Your task to perform on an android device: Go to internet settings Image 0: 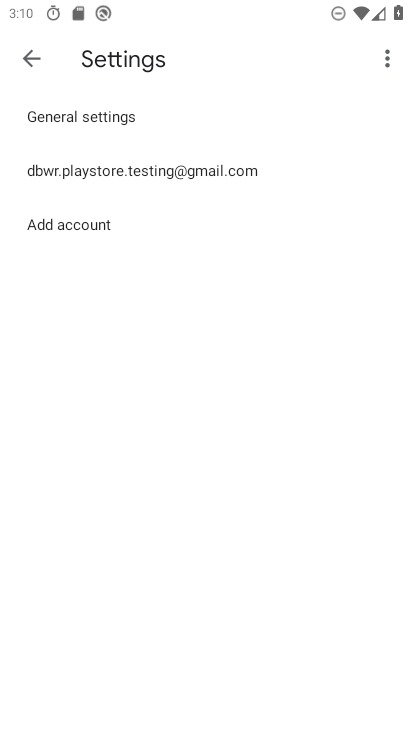
Step 0: drag from (239, 605) to (334, 341)
Your task to perform on an android device: Go to internet settings Image 1: 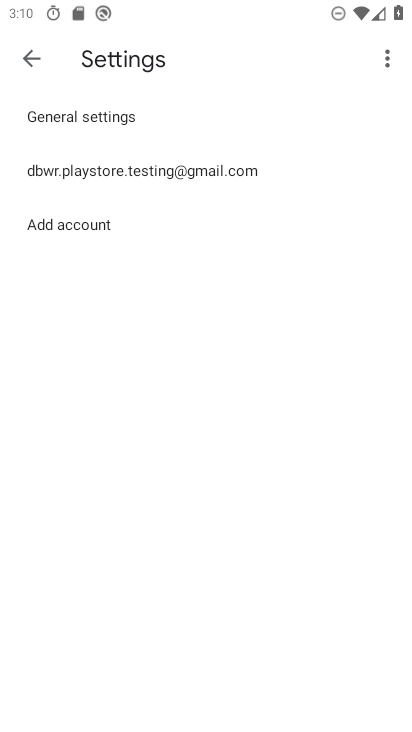
Step 1: press home button
Your task to perform on an android device: Go to internet settings Image 2: 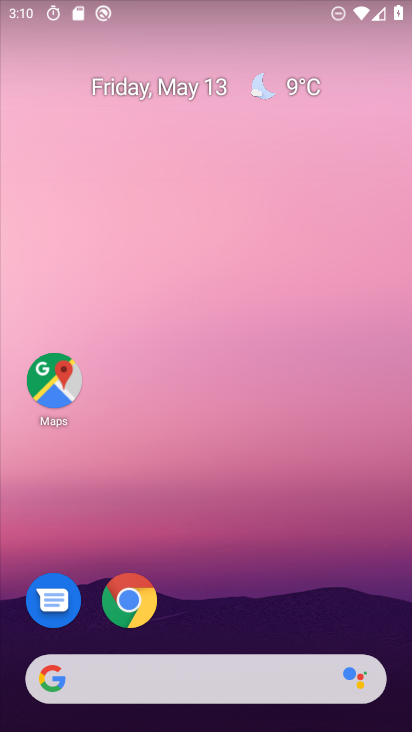
Step 2: drag from (205, 610) to (295, 173)
Your task to perform on an android device: Go to internet settings Image 3: 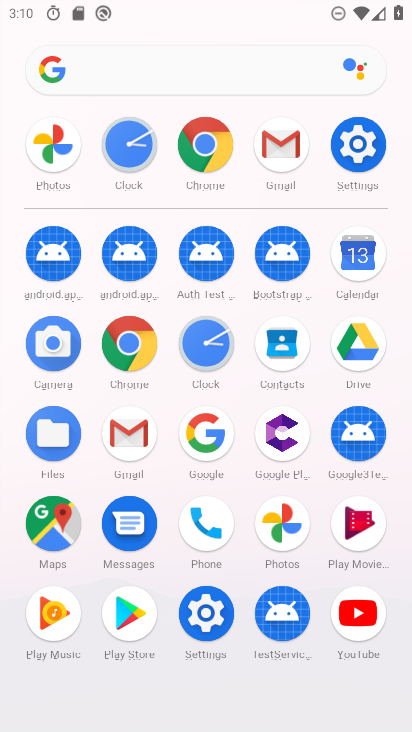
Step 3: click (203, 610)
Your task to perform on an android device: Go to internet settings Image 4: 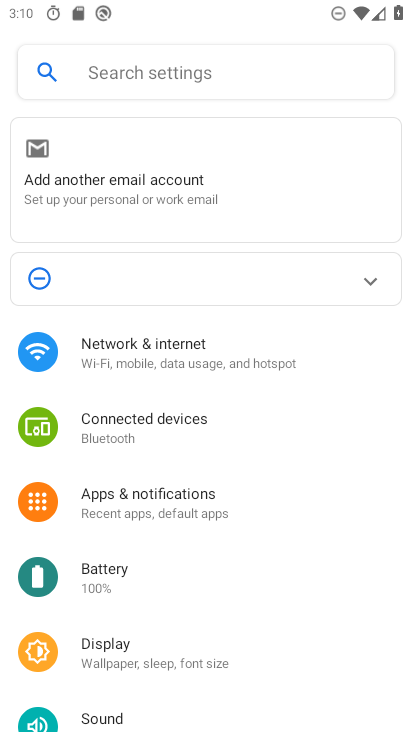
Step 4: click (186, 356)
Your task to perform on an android device: Go to internet settings Image 5: 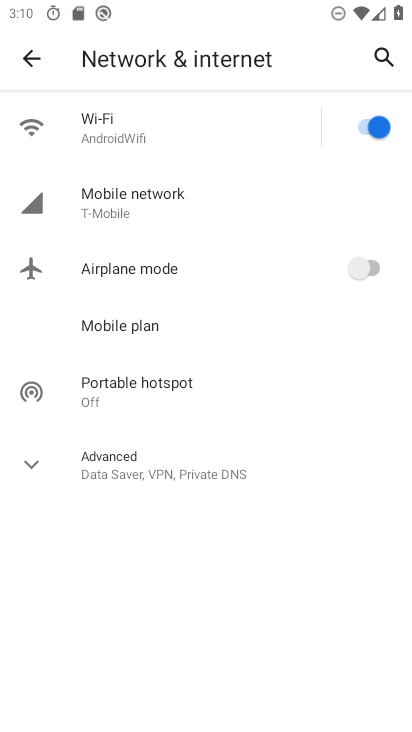
Step 5: task complete